Your task to perform on an android device: toggle pop-ups in chrome Image 0: 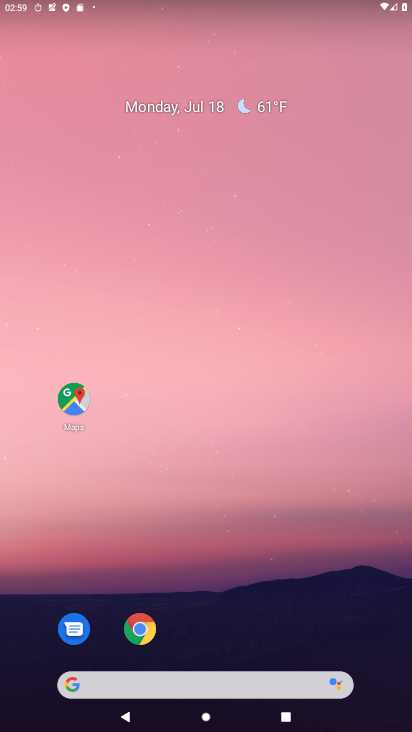
Step 0: click (138, 633)
Your task to perform on an android device: toggle pop-ups in chrome Image 1: 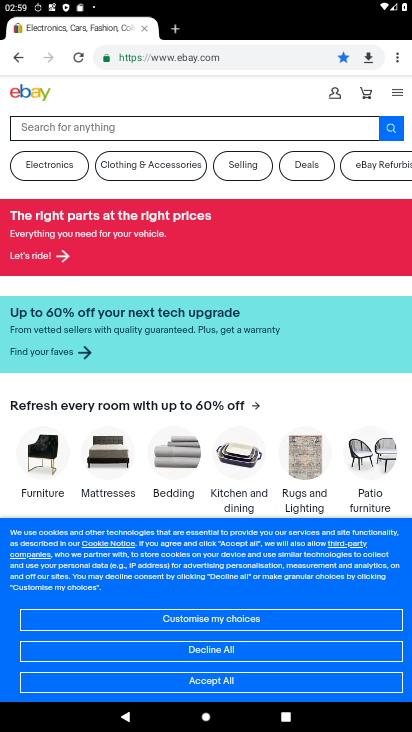
Step 1: click (397, 56)
Your task to perform on an android device: toggle pop-ups in chrome Image 2: 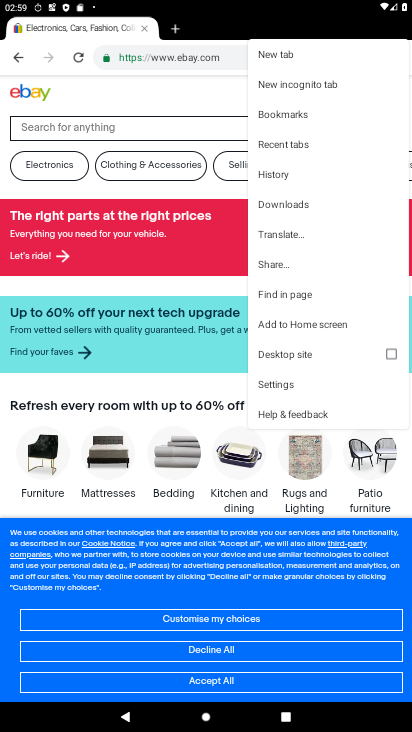
Step 2: click (284, 383)
Your task to perform on an android device: toggle pop-ups in chrome Image 3: 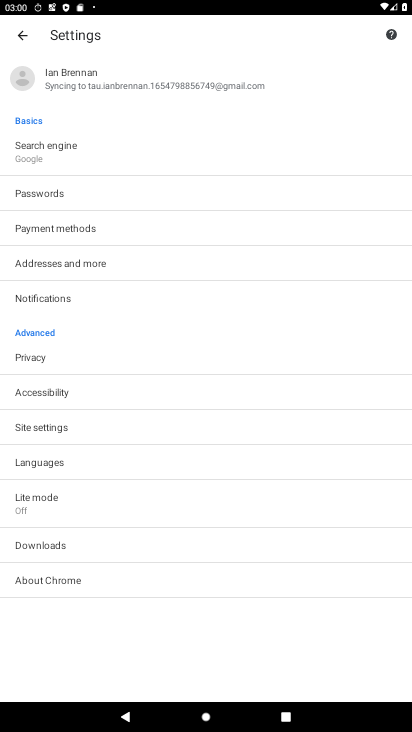
Step 3: click (57, 429)
Your task to perform on an android device: toggle pop-ups in chrome Image 4: 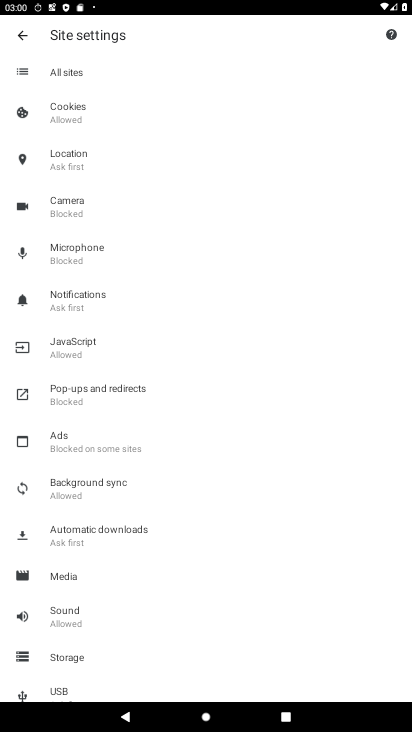
Step 4: click (84, 394)
Your task to perform on an android device: toggle pop-ups in chrome Image 5: 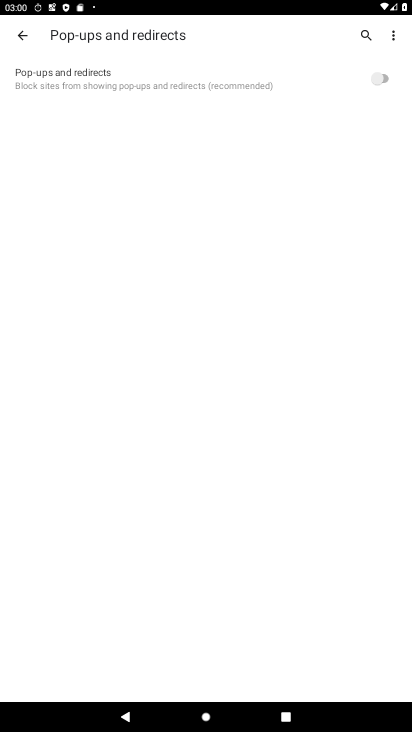
Step 5: click (379, 83)
Your task to perform on an android device: toggle pop-ups in chrome Image 6: 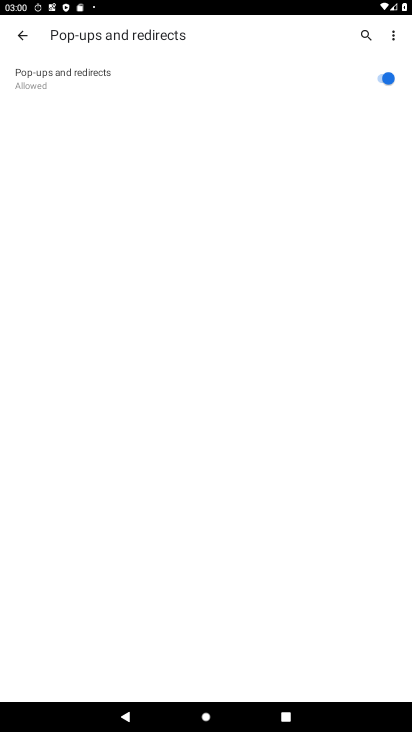
Step 6: task complete